Your task to perform on an android device: Show me popular videos on Youtube Image 0: 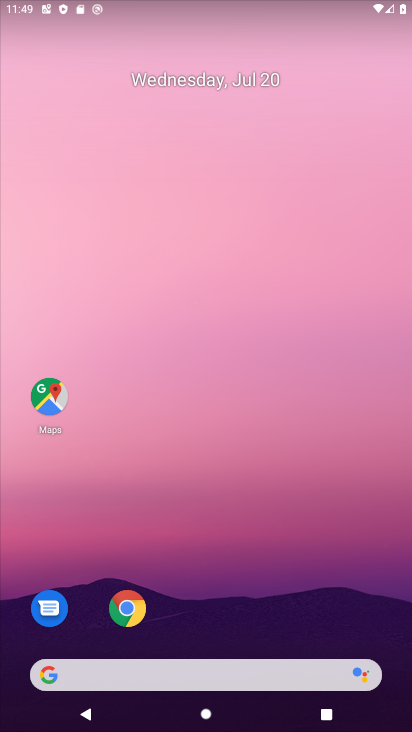
Step 0: drag from (353, 594) to (12, 50)
Your task to perform on an android device: Show me popular videos on Youtube Image 1: 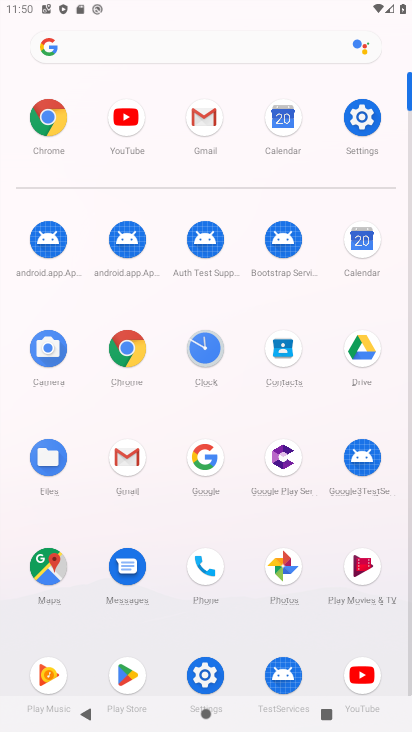
Step 1: click (364, 674)
Your task to perform on an android device: Show me popular videos on Youtube Image 2: 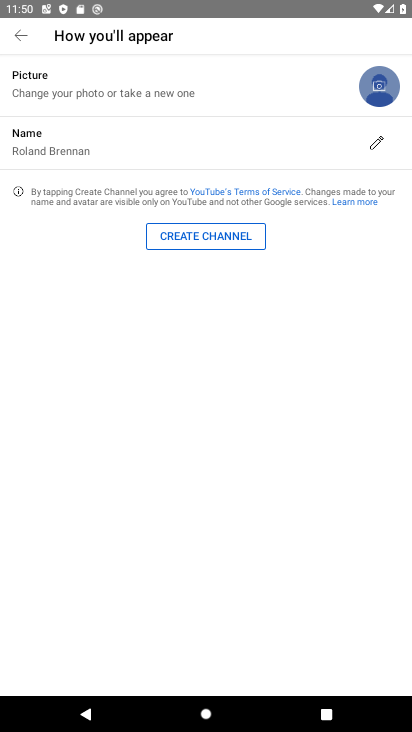
Step 2: task complete